Your task to perform on an android device: turn off improve location accuracy Image 0: 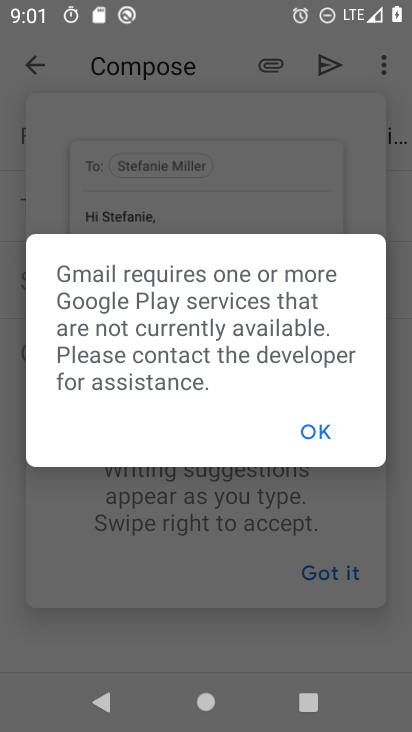
Step 0: press home button
Your task to perform on an android device: turn off improve location accuracy Image 1: 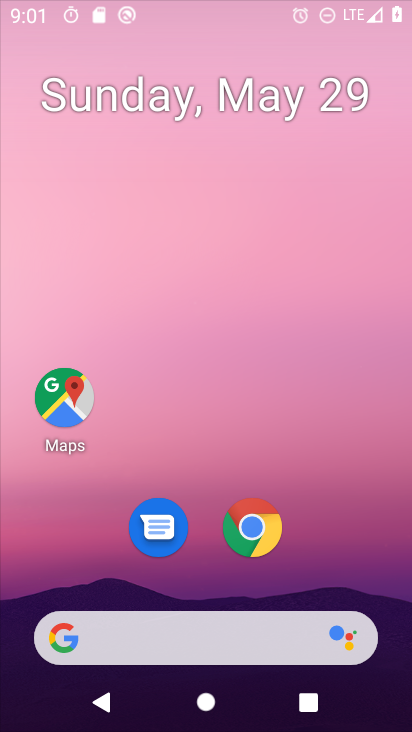
Step 1: drag from (388, 672) to (292, 10)
Your task to perform on an android device: turn off improve location accuracy Image 2: 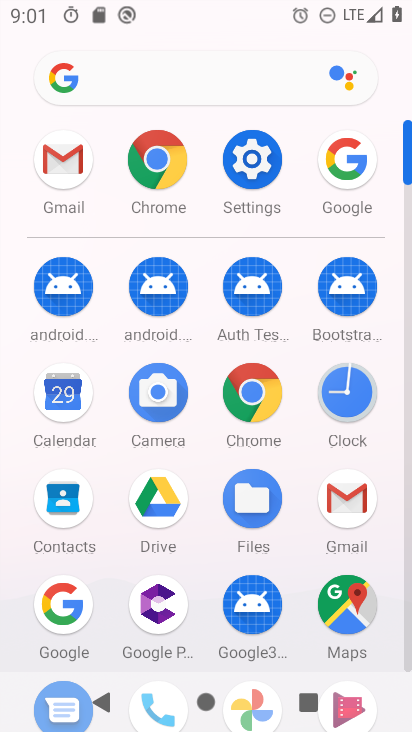
Step 2: click (262, 161)
Your task to perform on an android device: turn off improve location accuracy Image 3: 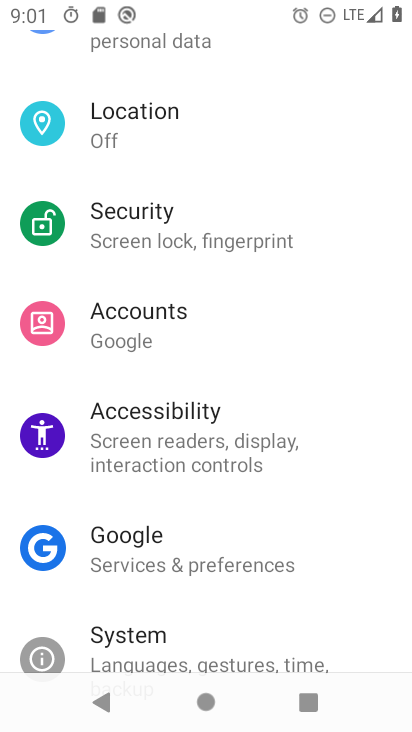
Step 3: click (176, 135)
Your task to perform on an android device: turn off improve location accuracy Image 4: 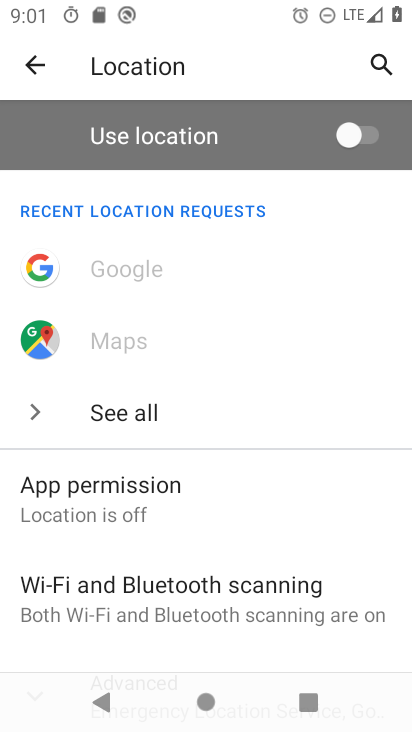
Step 4: drag from (131, 617) to (194, 338)
Your task to perform on an android device: turn off improve location accuracy Image 5: 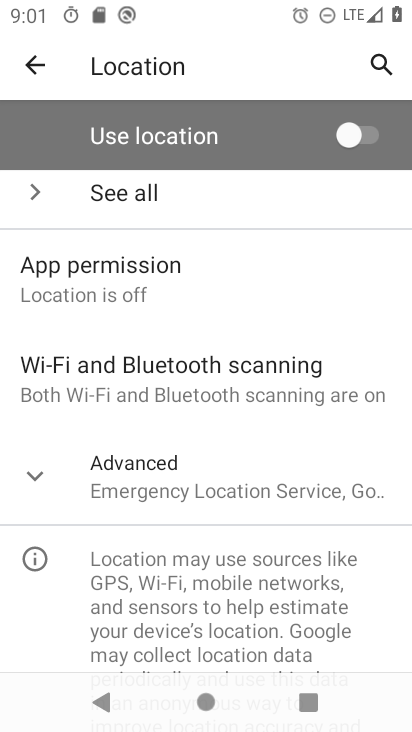
Step 5: click (147, 489)
Your task to perform on an android device: turn off improve location accuracy Image 6: 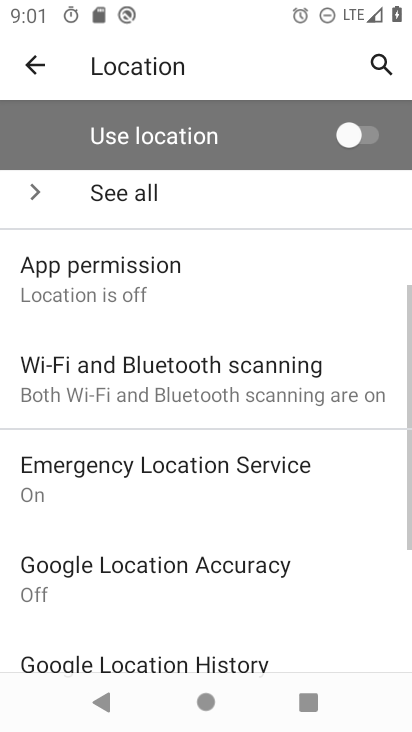
Step 6: click (182, 562)
Your task to perform on an android device: turn off improve location accuracy Image 7: 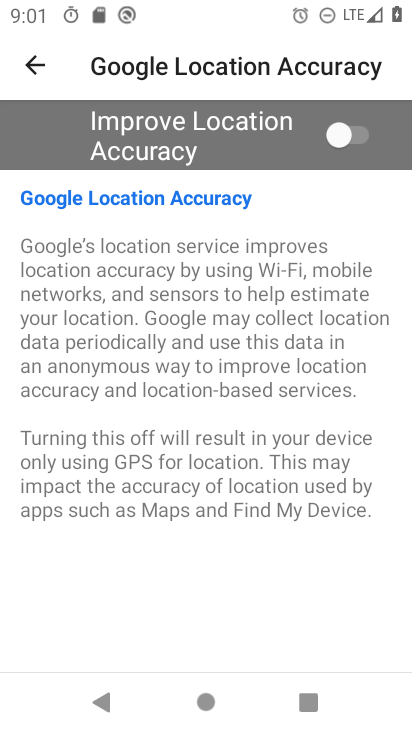
Step 7: task complete